Your task to perform on an android device: install app "Google Sheets" Image 0: 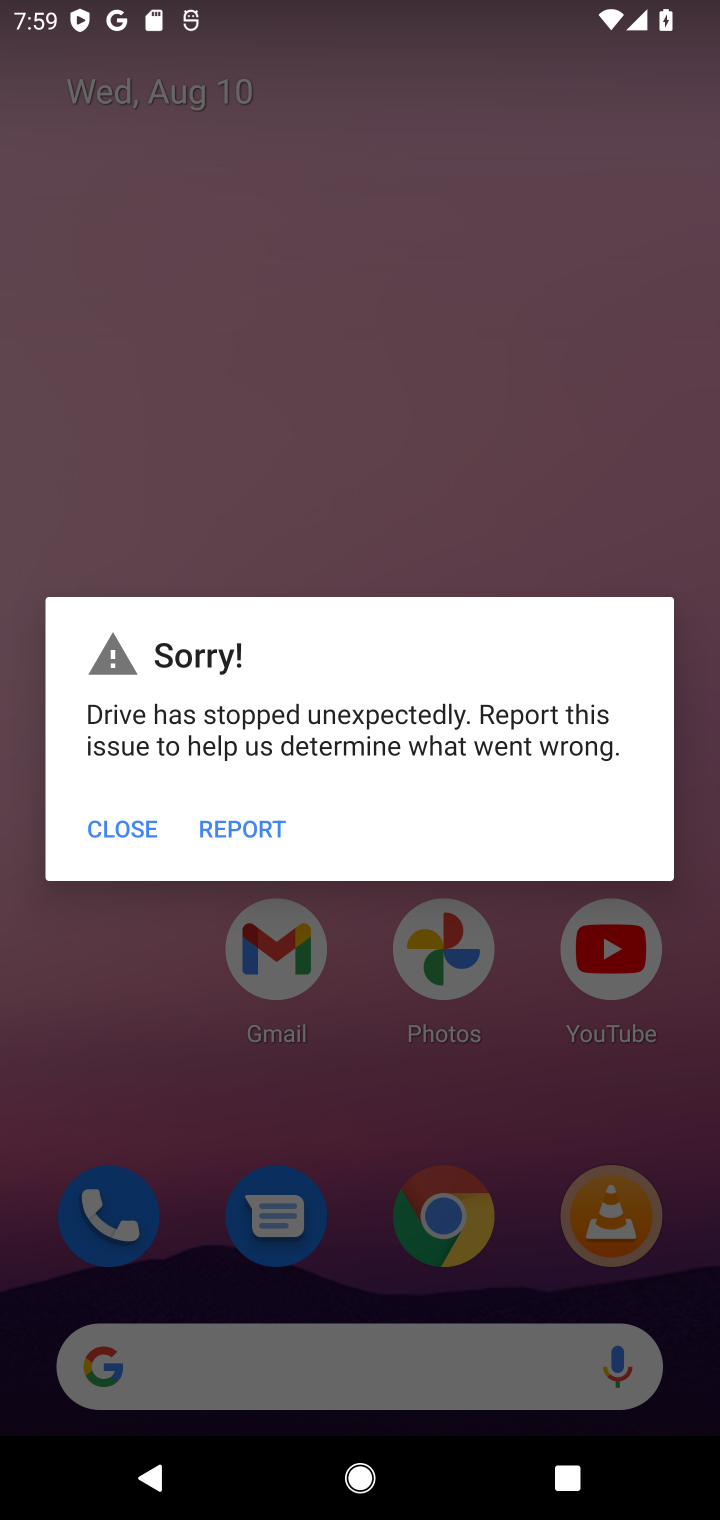
Step 0: click (146, 829)
Your task to perform on an android device: install app "Google Sheets" Image 1: 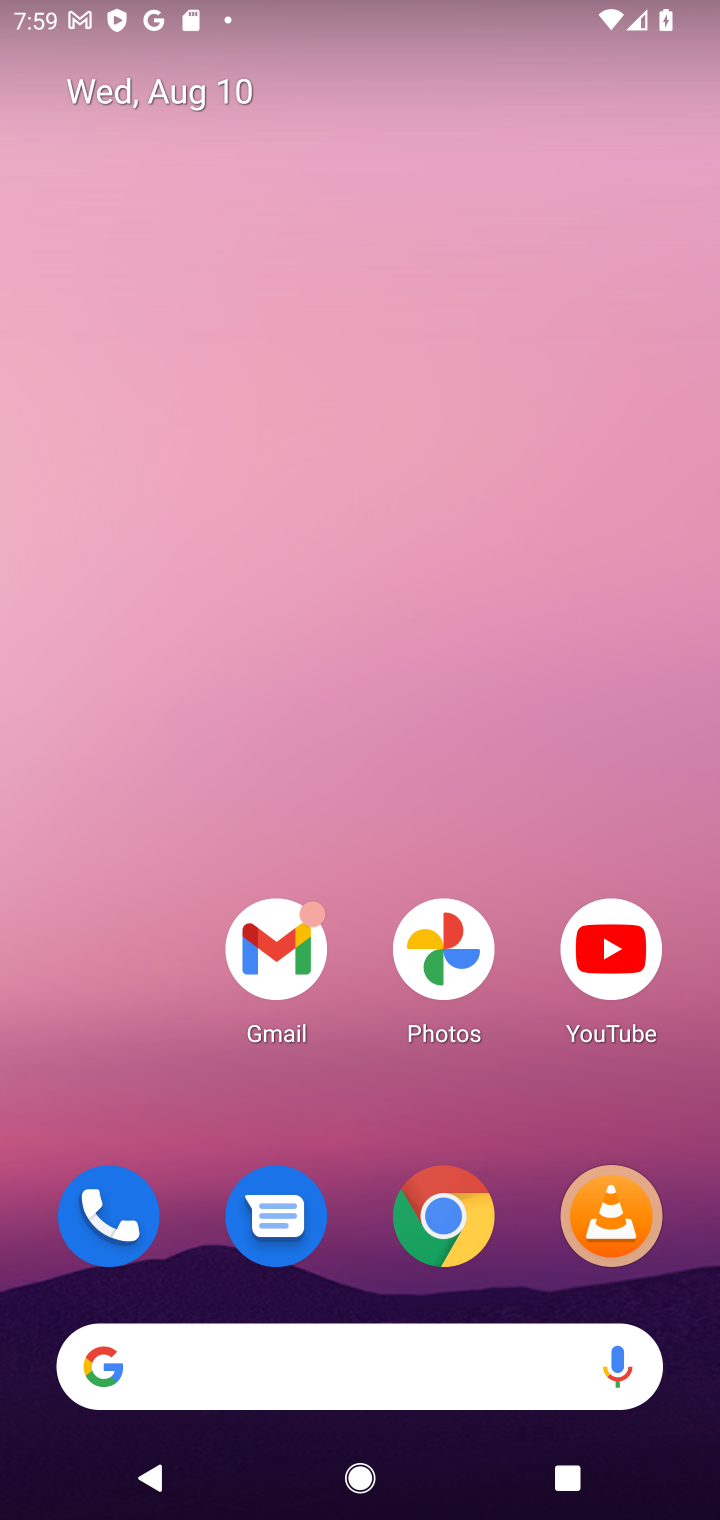
Step 1: drag from (237, 938) to (413, 68)
Your task to perform on an android device: install app "Google Sheets" Image 2: 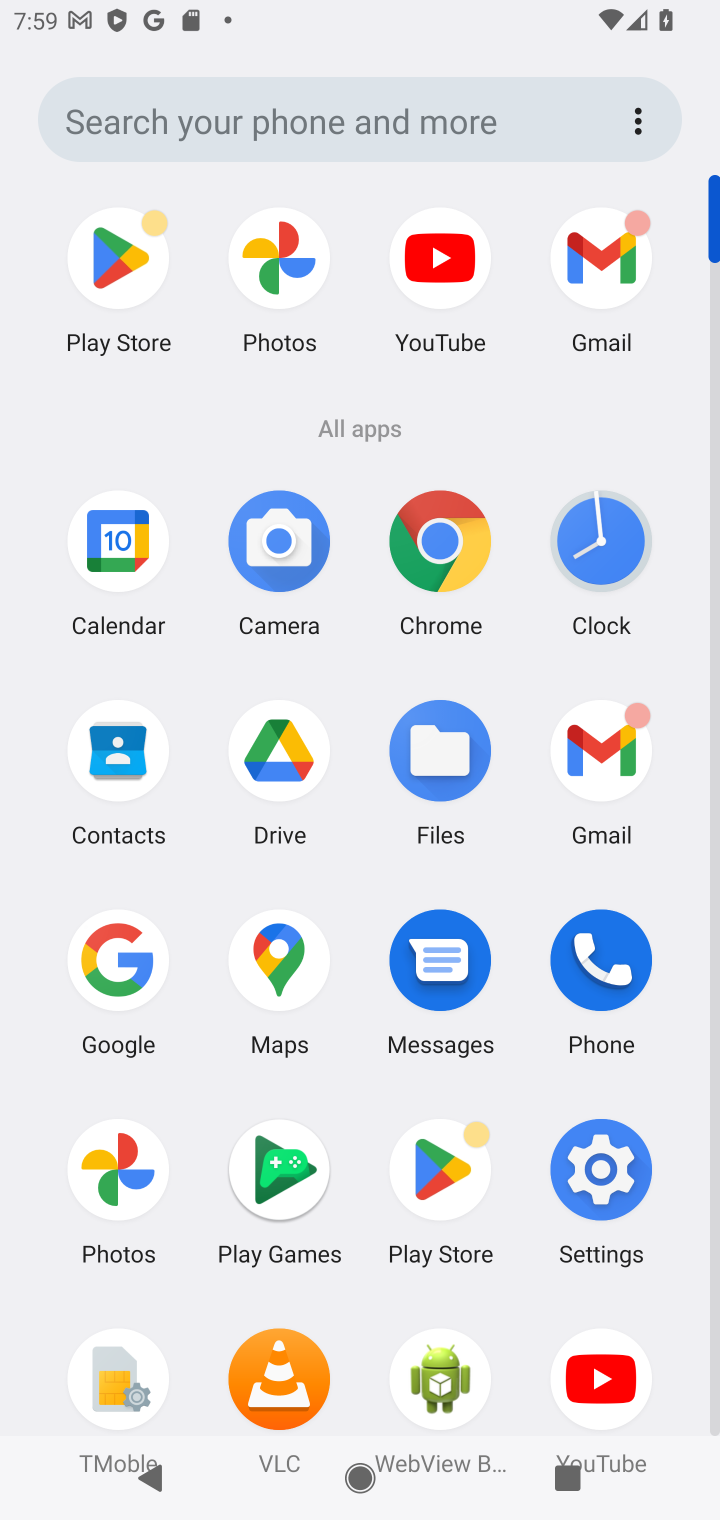
Step 2: click (113, 265)
Your task to perform on an android device: install app "Google Sheets" Image 3: 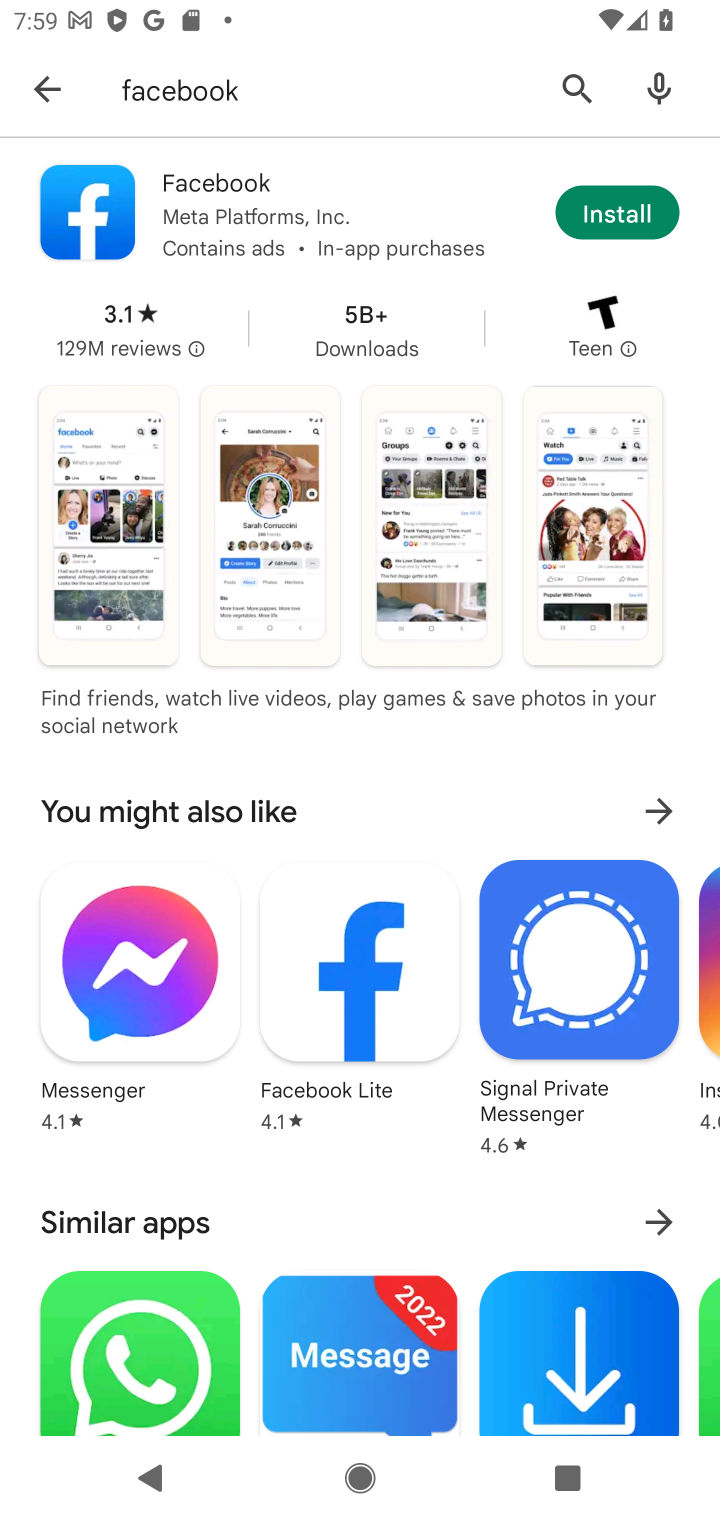
Step 3: click (559, 68)
Your task to perform on an android device: install app "Google Sheets" Image 4: 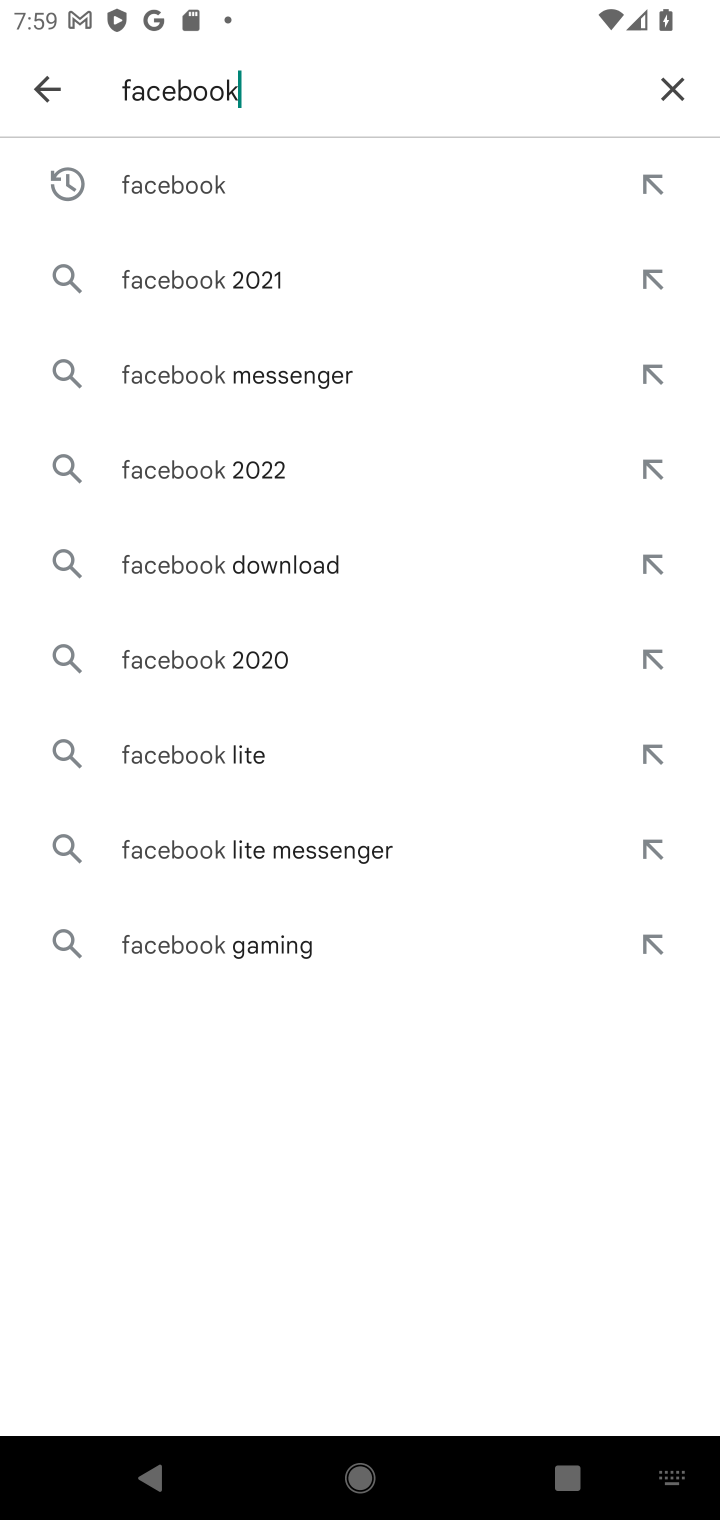
Step 4: click (662, 85)
Your task to perform on an android device: install app "Google Sheets" Image 5: 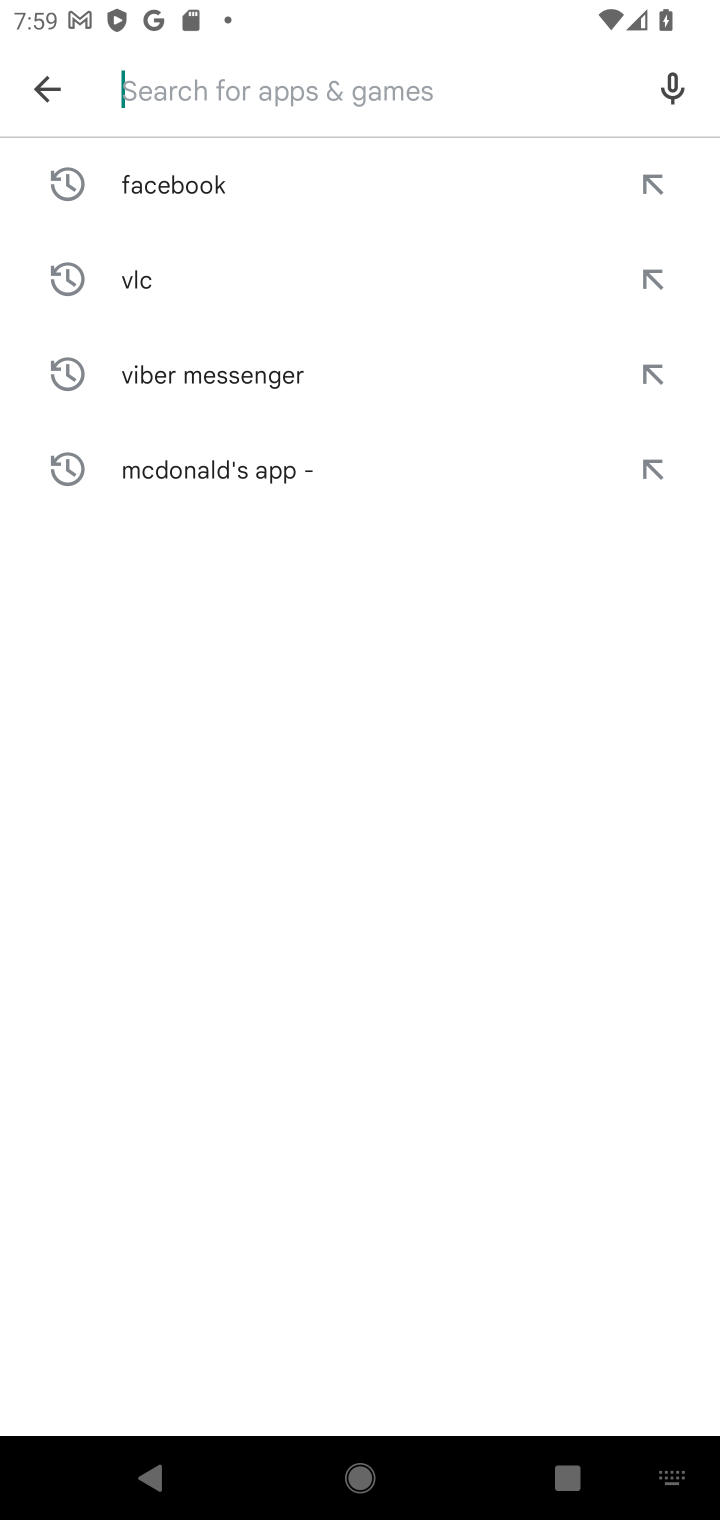
Step 5: type "google sheets"
Your task to perform on an android device: install app "Google Sheets" Image 6: 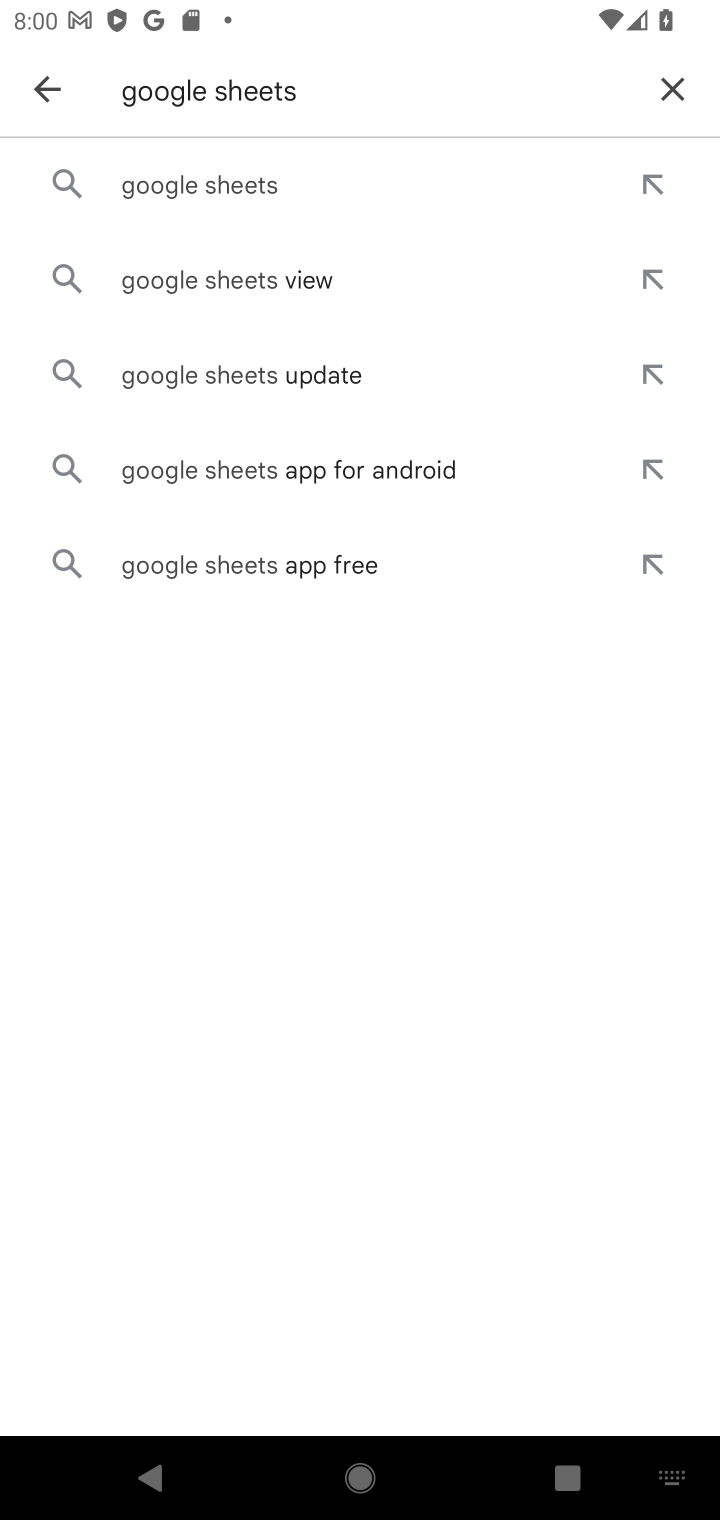
Step 6: click (159, 178)
Your task to perform on an android device: install app "Google Sheets" Image 7: 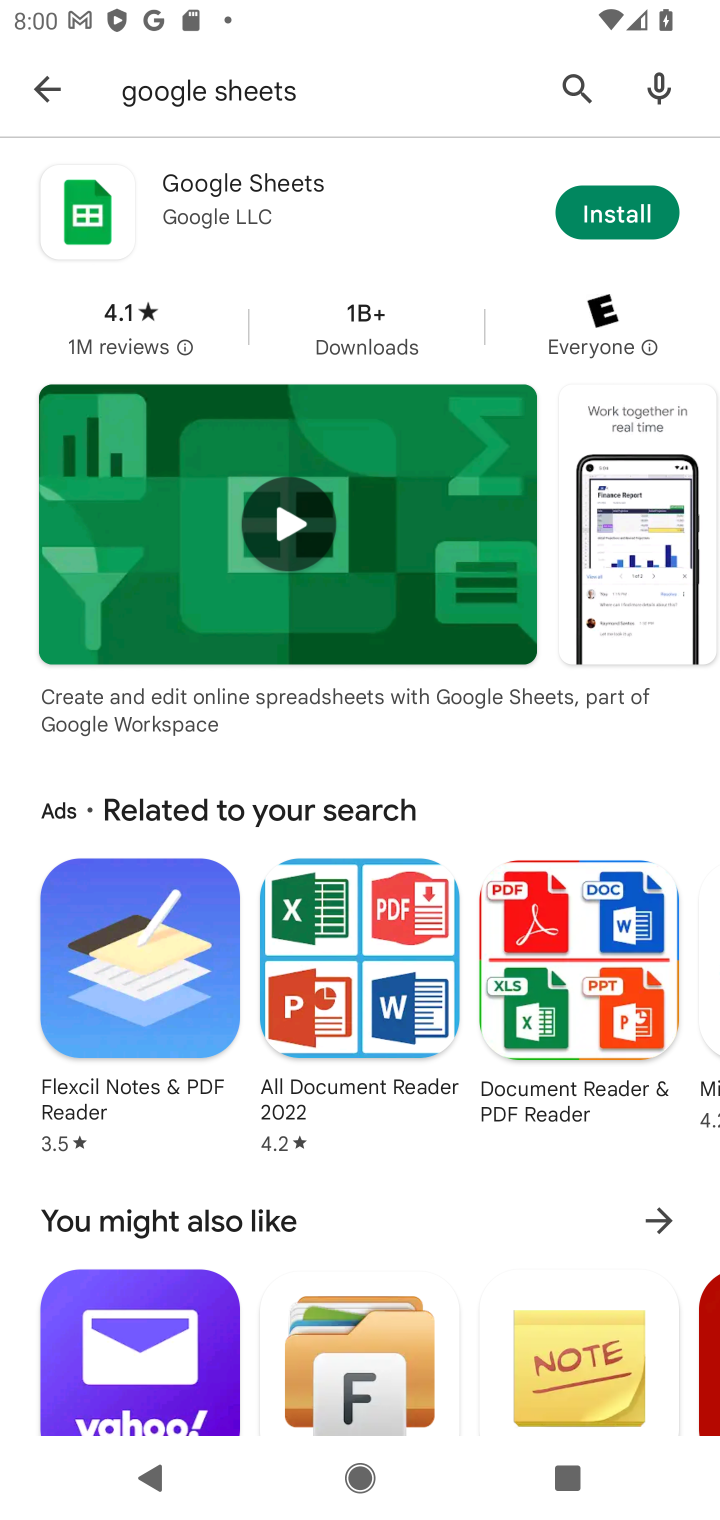
Step 7: click (626, 218)
Your task to perform on an android device: install app "Google Sheets" Image 8: 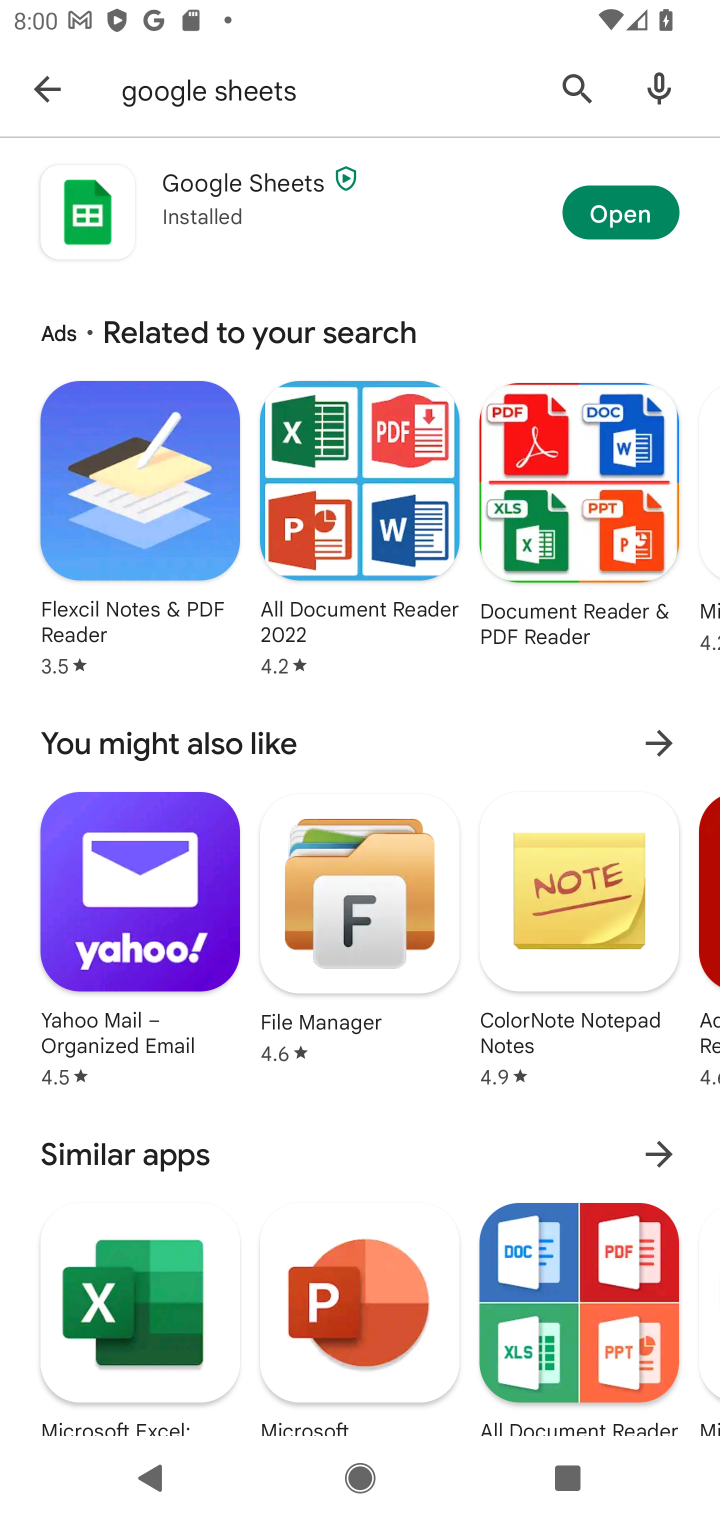
Step 8: click (598, 202)
Your task to perform on an android device: install app "Google Sheets" Image 9: 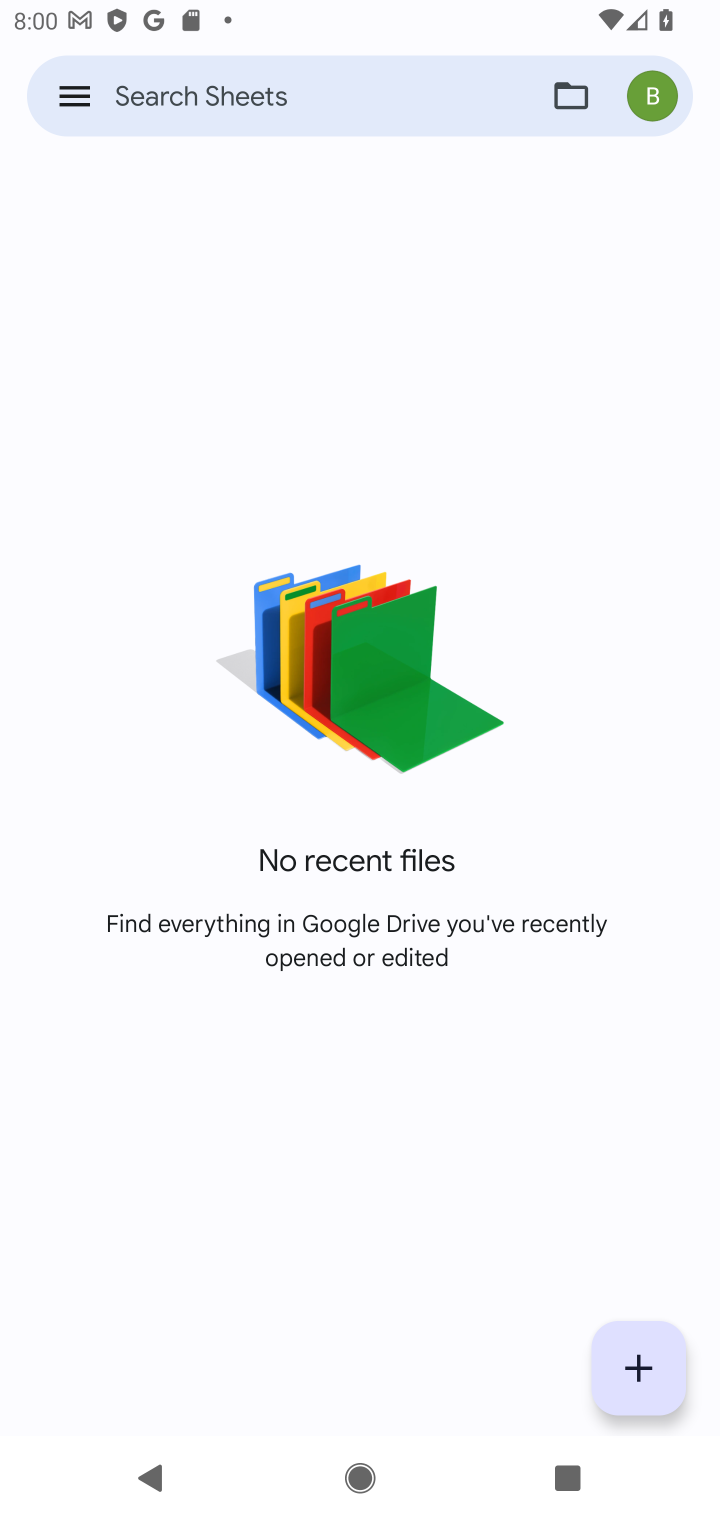
Step 9: task complete